Your task to perform on an android device: set the timer Image 0: 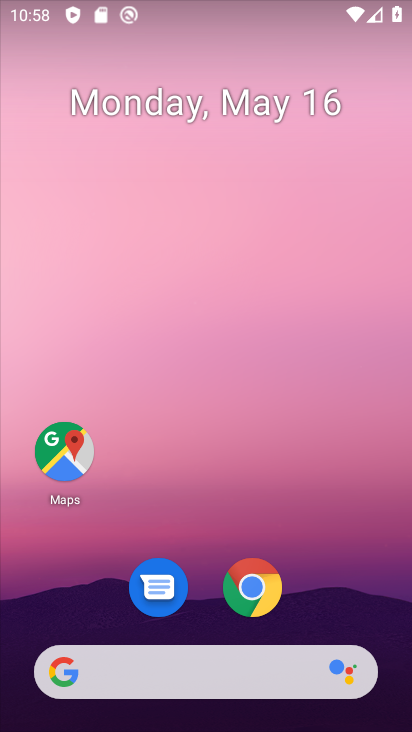
Step 0: drag from (393, 645) to (267, 67)
Your task to perform on an android device: set the timer Image 1: 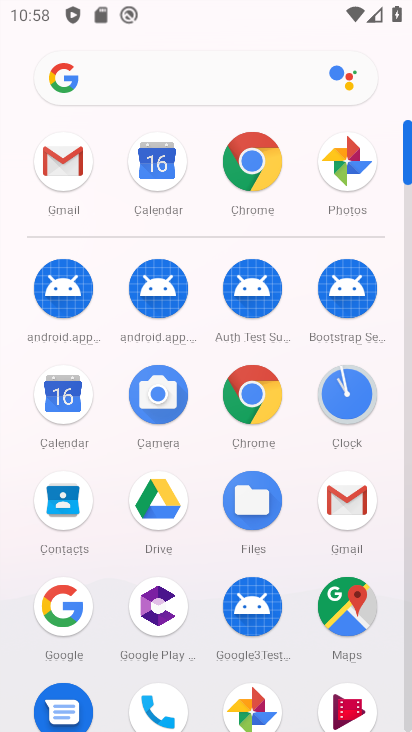
Step 1: click (353, 416)
Your task to perform on an android device: set the timer Image 2: 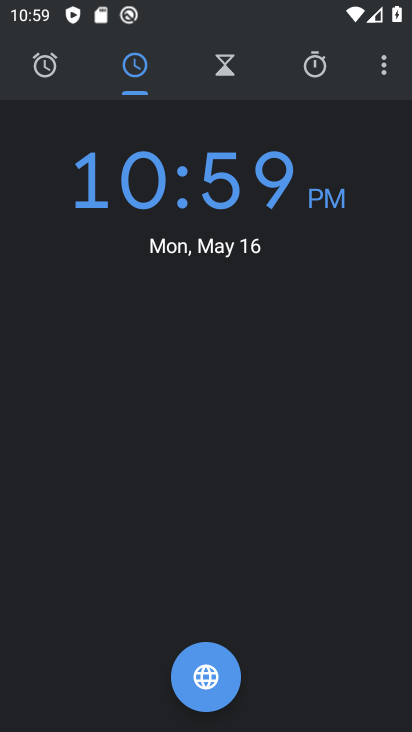
Step 2: click (385, 58)
Your task to perform on an android device: set the timer Image 3: 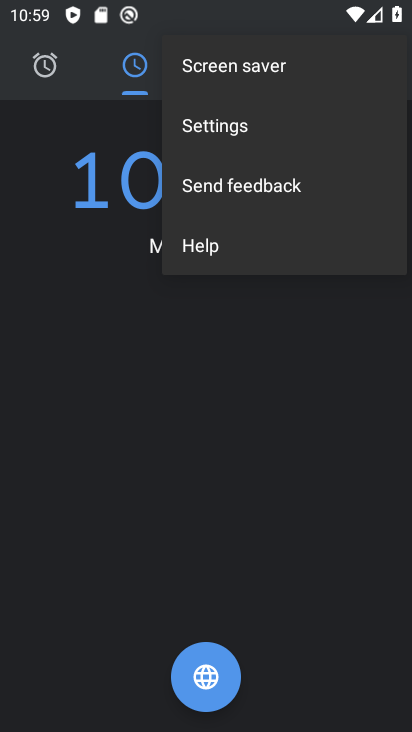
Step 3: click (248, 144)
Your task to perform on an android device: set the timer Image 4: 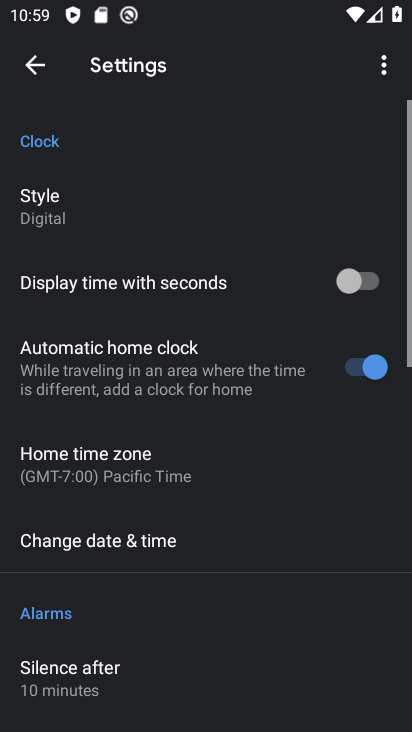
Step 4: click (147, 454)
Your task to perform on an android device: set the timer Image 5: 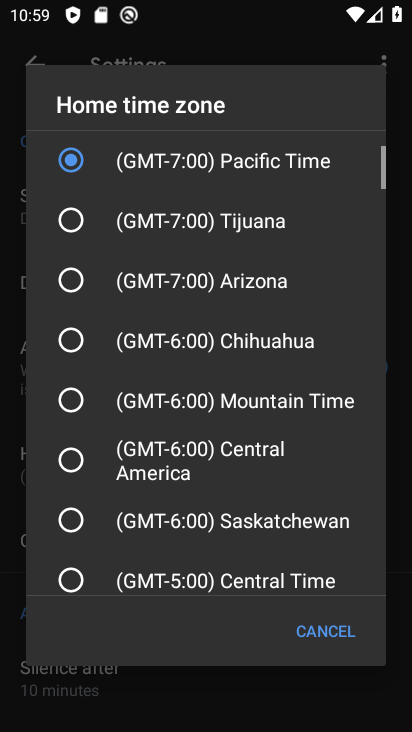
Step 5: click (187, 391)
Your task to perform on an android device: set the timer Image 6: 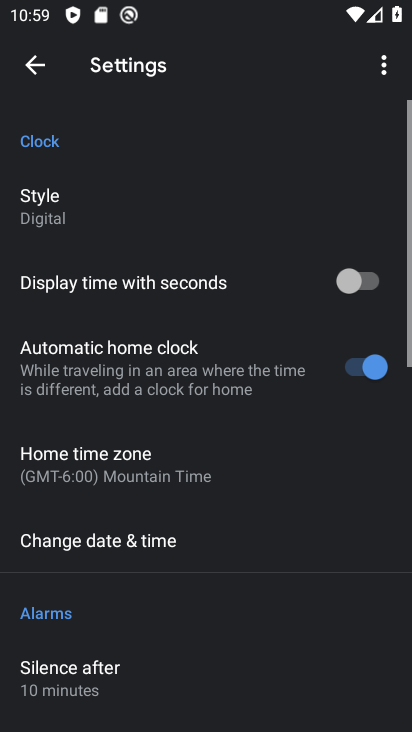
Step 6: task complete